Your task to perform on an android device: Open wifi settings Image 0: 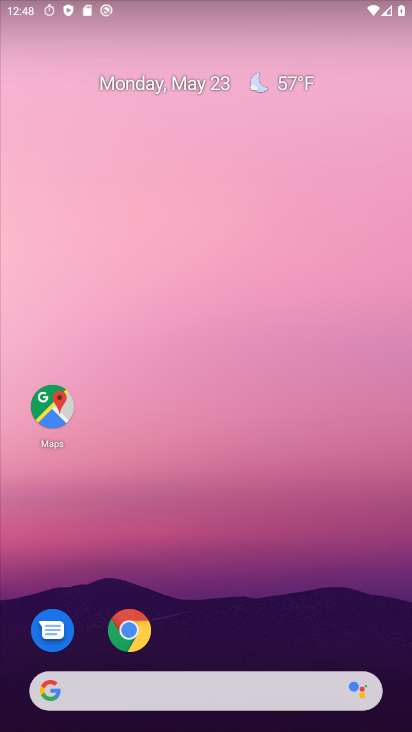
Step 0: drag from (291, 545) to (287, 2)
Your task to perform on an android device: Open wifi settings Image 1: 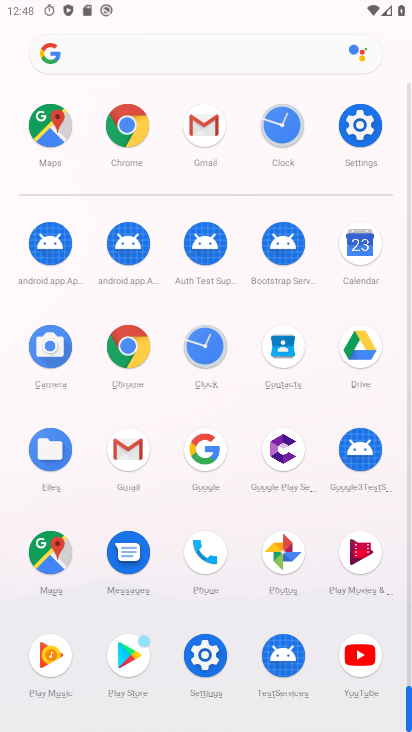
Step 1: drag from (0, 580) to (9, 274)
Your task to perform on an android device: Open wifi settings Image 2: 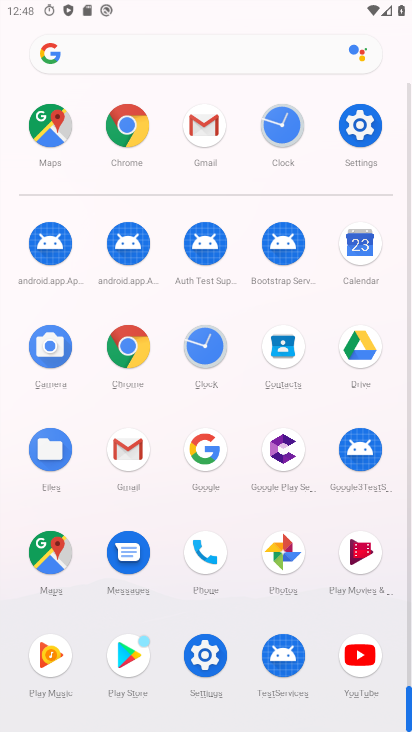
Step 2: click (205, 655)
Your task to perform on an android device: Open wifi settings Image 3: 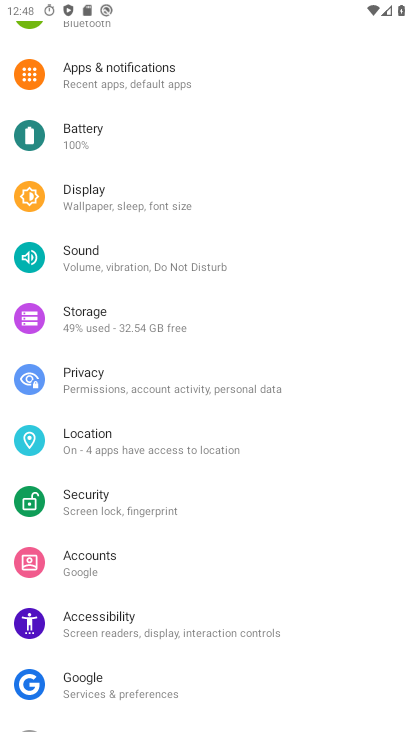
Step 3: drag from (203, 203) to (163, 597)
Your task to perform on an android device: Open wifi settings Image 4: 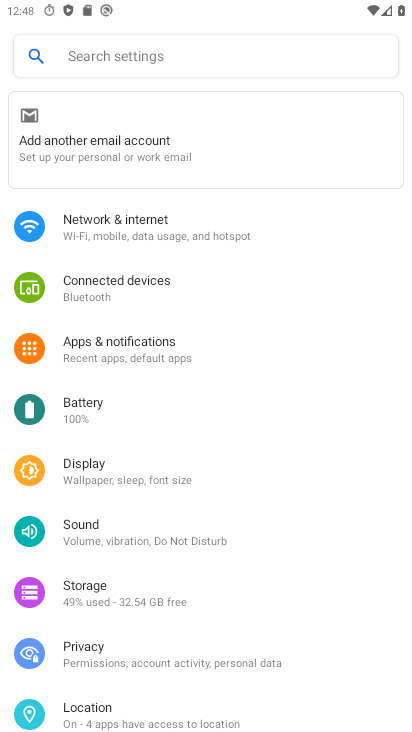
Step 4: click (189, 218)
Your task to perform on an android device: Open wifi settings Image 5: 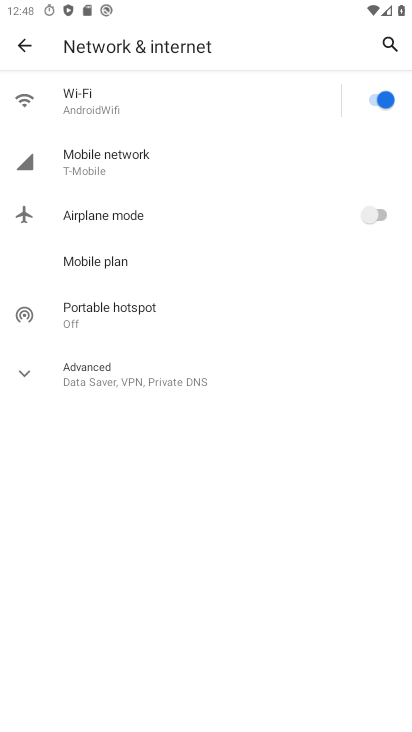
Step 5: click (154, 85)
Your task to perform on an android device: Open wifi settings Image 6: 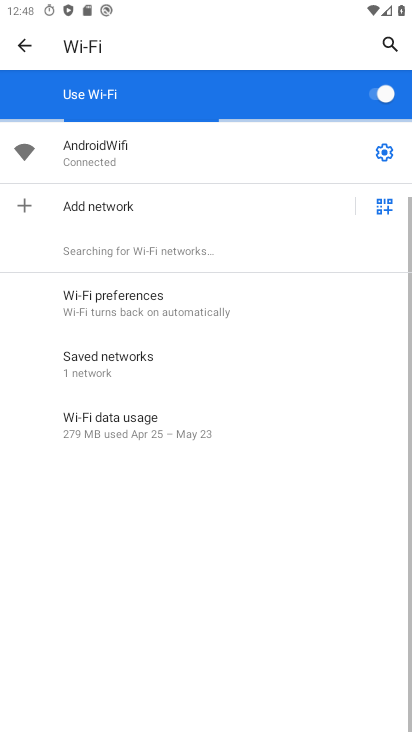
Step 6: task complete